Your task to perform on an android device: set an alarm Image 0: 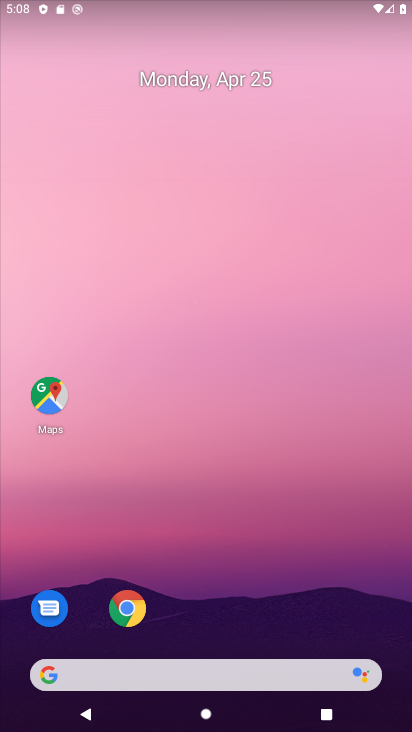
Step 0: drag from (300, 575) to (142, 11)
Your task to perform on an android device: set an alarm Image 1: 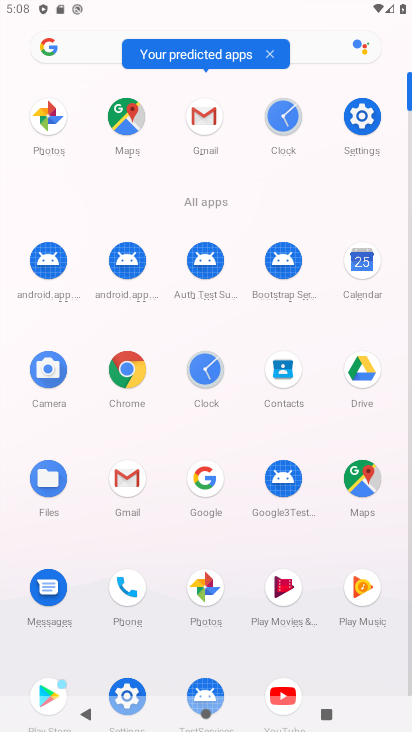
Step 1: drag from (3, 488) to (7, 212)
Your task to perform on an android device: set an alarm Image 2: 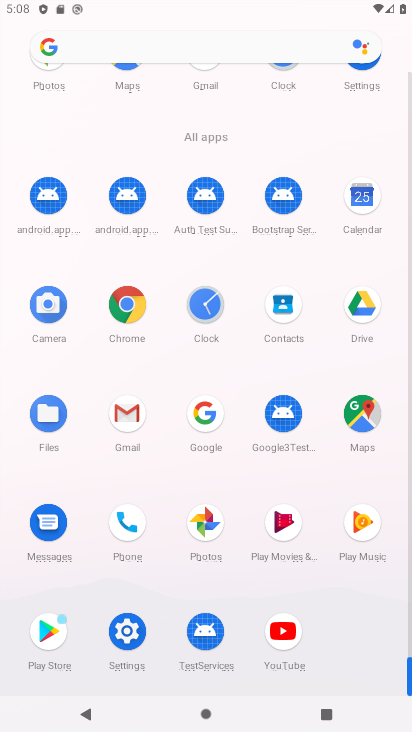
Step 2: click (206, 300)
Your task to perform on an android device: set an alarm Image 3: 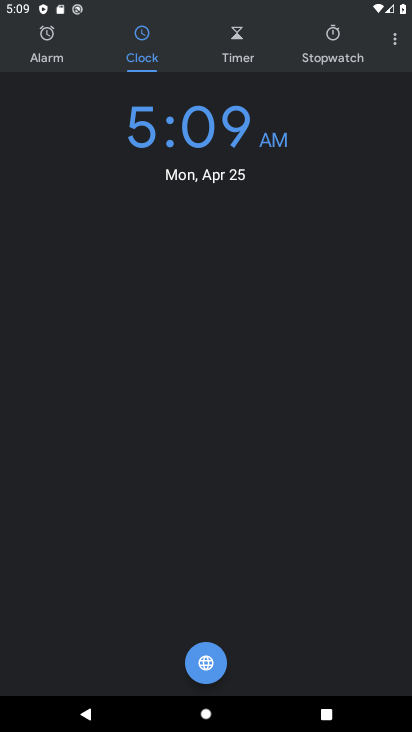
Step 3: click (68, 42)
Your task to perform on an android device: set an alarm Image 4: 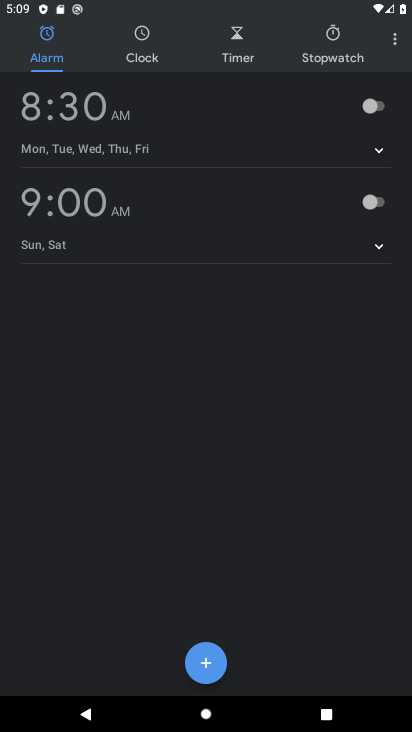
Step 4: click (210, 651)
Your task to perform on an android device: set an alarm Image 5: 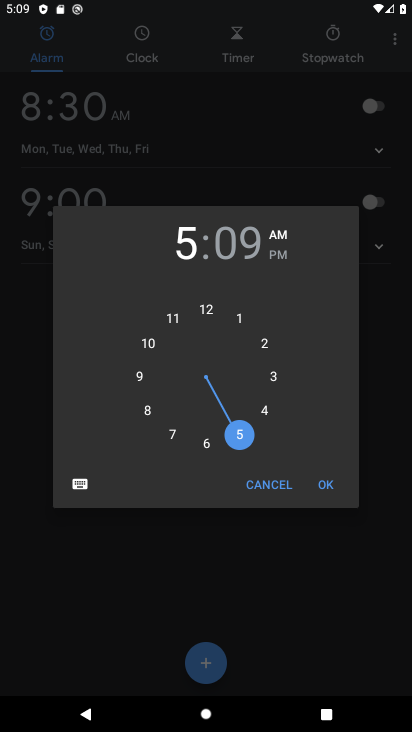
Step 5: click (275, 373)
Your task to perform on an android device: set an alarm Image 6: 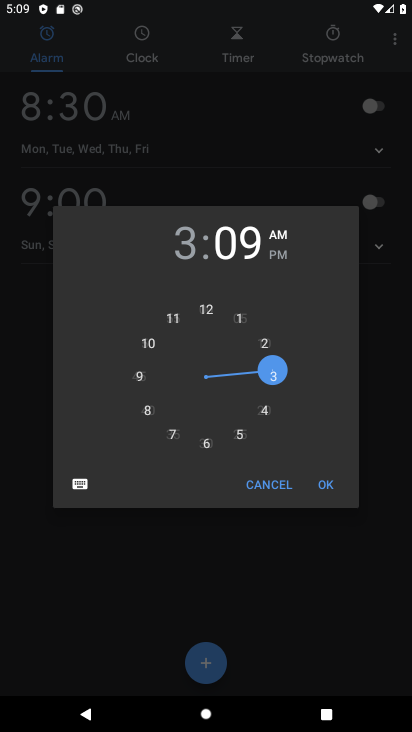
Step 6: click (322, 481)
Your task to perform on an android device: set an alarm Image 7: 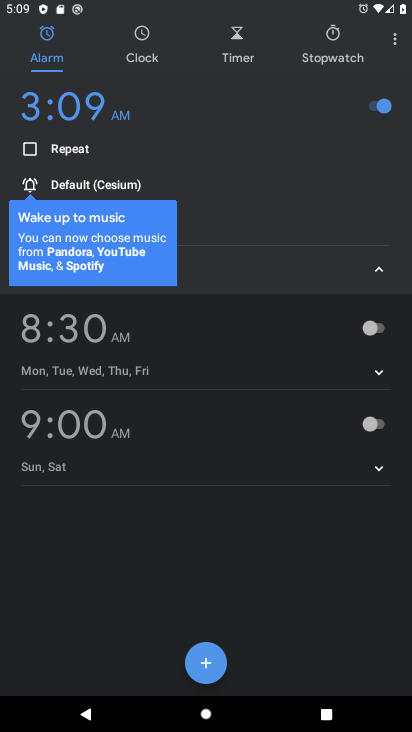
Step 7: task complete